Your task to perform on an android device: Open wifi settings Image 0: 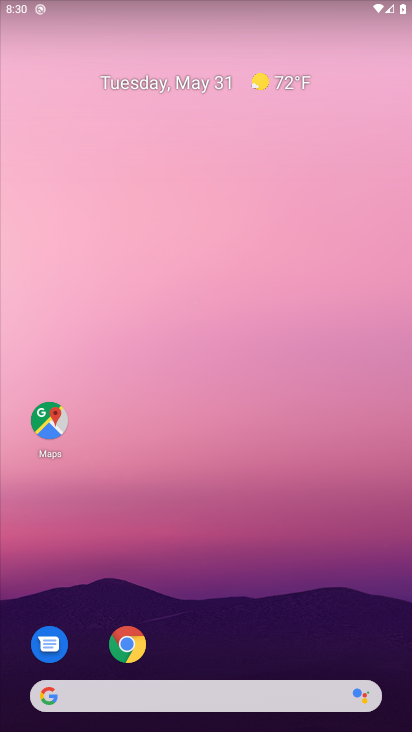
Step 0: press home button
Your task to perform on an android device: Open wifi settings Image 1: 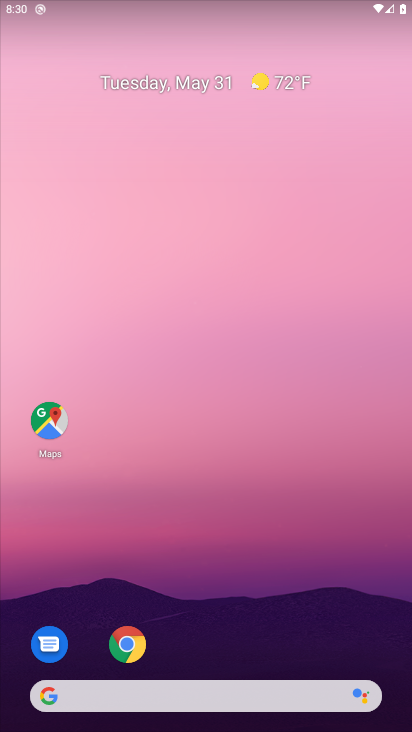
Step 1: drag from (208, 655) to (198, 74)
Your task to perform on an android device: Open wifi settings Image 2: 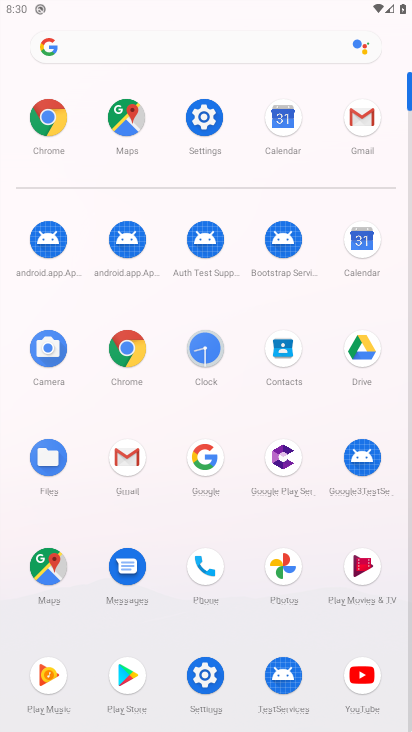
Step 2: click (203, 109)
Your task to perform on an android device: Open wifi settings Image 3: 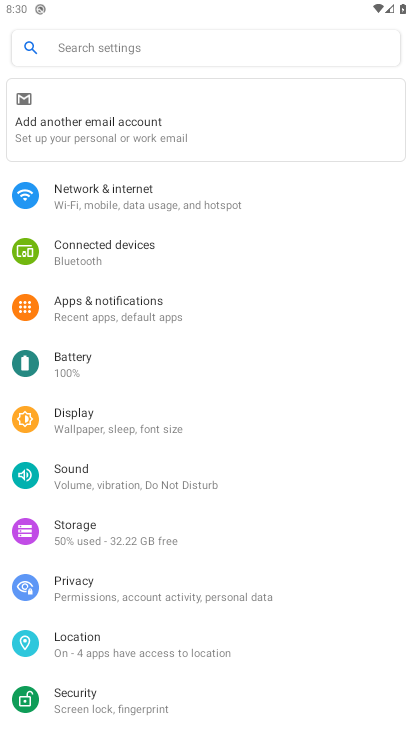
Step 3: click (159, 184)
Your task to perform on an android device: Open wifi settings Image 4: 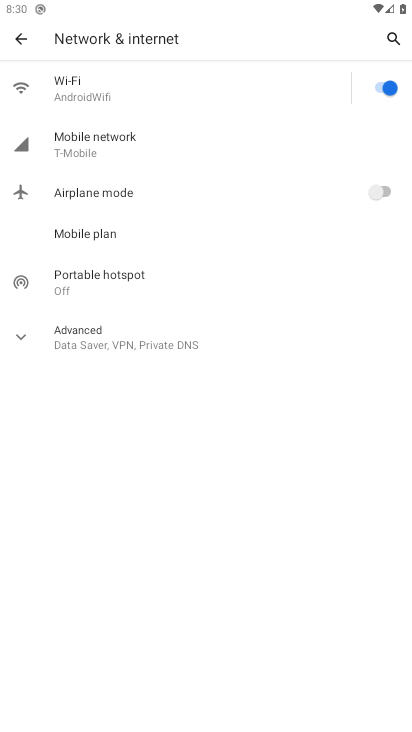
Step 4: click (138, 99)
Your task to perform on an android device: Open wifi settings Image 5: 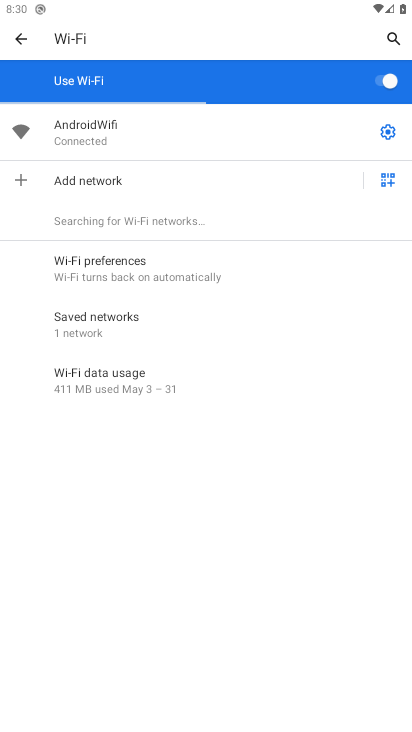
Step 5: task complete